Your task to perform on an android device: set the timer Image 0: 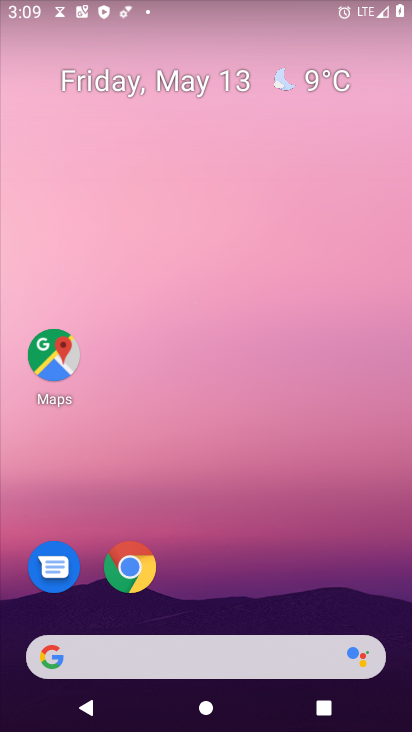
Step 0: drag from (252, 608) to (248, 33)
Your task to perform on an android device: set the timer Image 1: 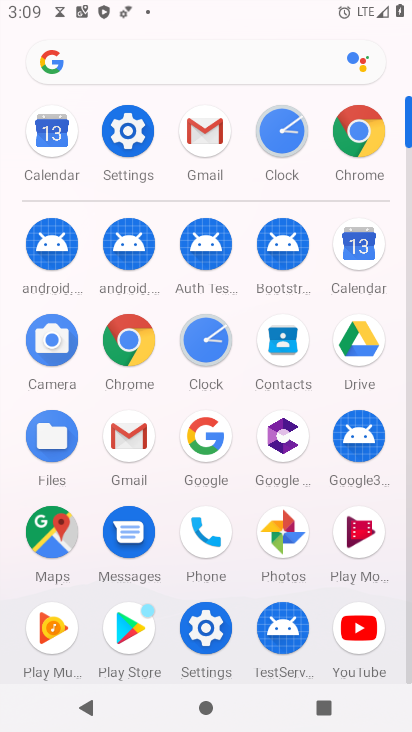
Step 1: click (290, 126)
Your task to perform on an android device: set the timer Image 2: 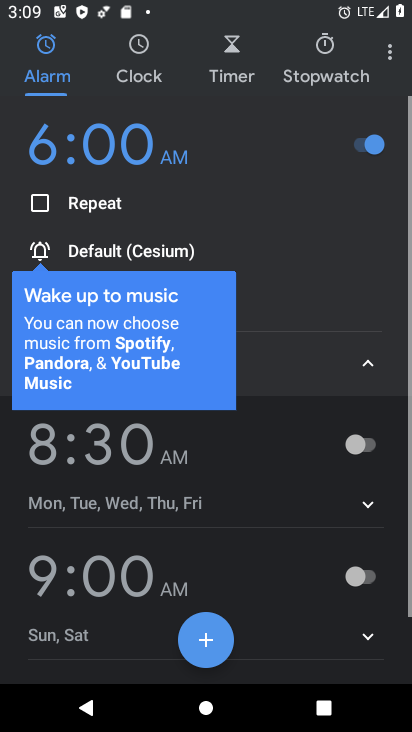
Step 2: click (231, 60)
Your task to perform on an android device: set the timer Image 3: 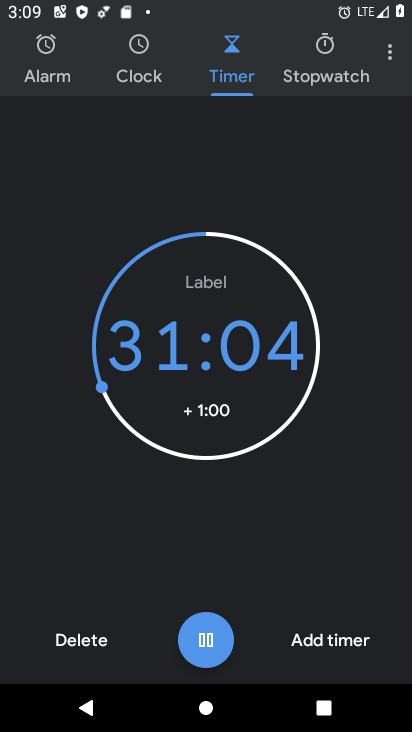
Step 3: click (308, 642)
Your task to perform on an android device: set the timer Image 4: 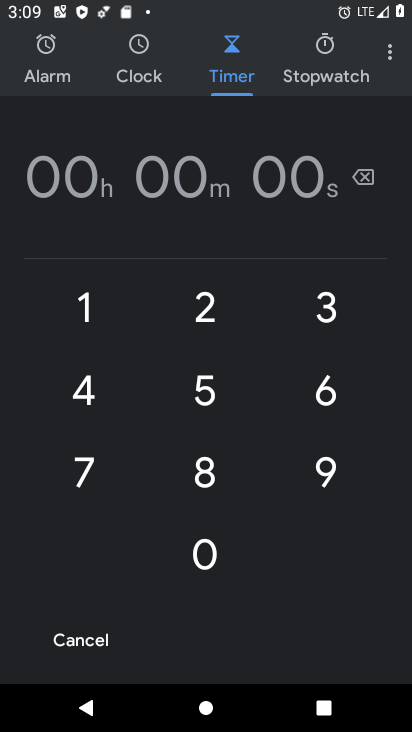
Step 4: click (206, 322)
Your task to perform on an android device: set the timer Image 5: 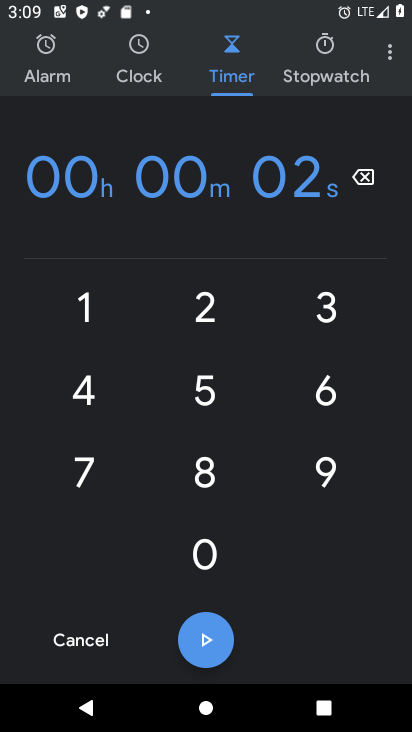
Step 5: click (211, 394)
Your task to perform on an android device: set the timer Image 6: 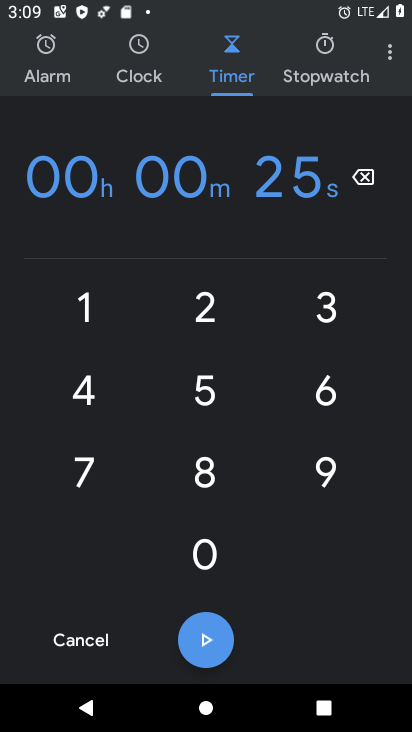
Step 6: click (207, 649)
Your task to perform on an android device: set the timer Image 7: 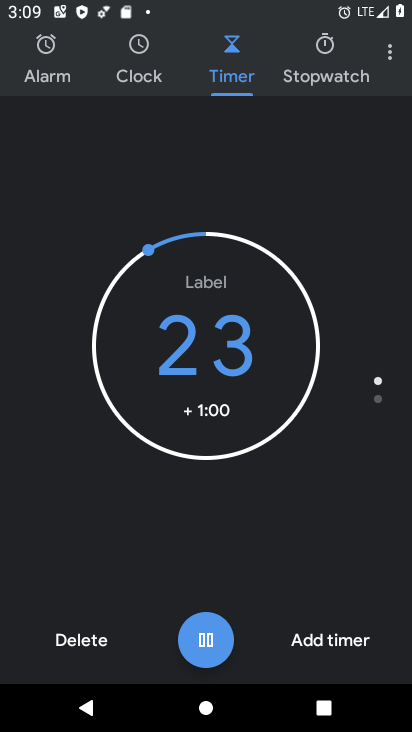
Step 7: task complete